Your task to perform on an android device: turn off picture-in-picture Image 0: 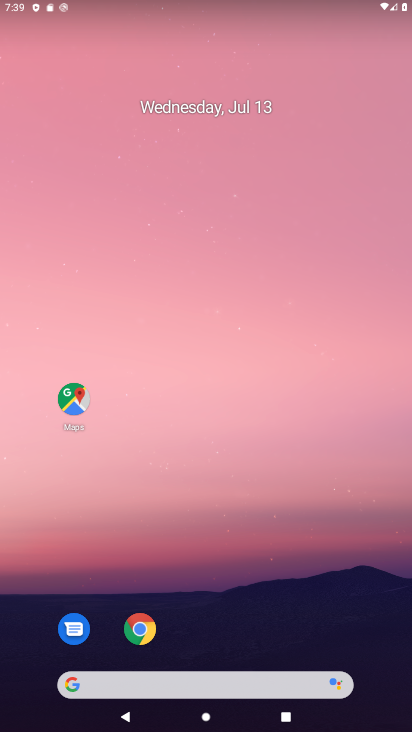
Step 0: drag from (351, 623) to (369, 26)
Your task to perform on an android device: turn off picture-in-picture Image 1: 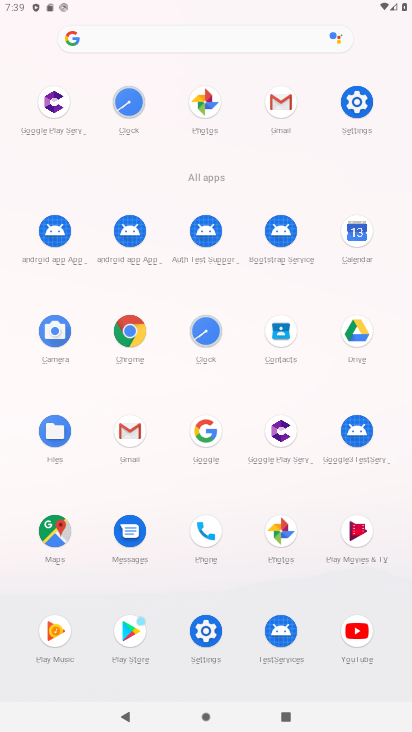
Step 1: click (132, 334)
Your task to perform on an android device: turn off picture-in-picture Image 2: 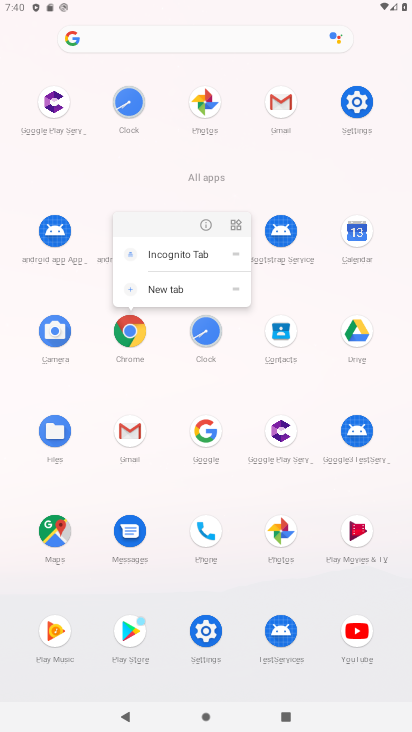
Step 2: click (200, 227)
Your task to perform on an android device: turn off picture-in-picture Image 3: 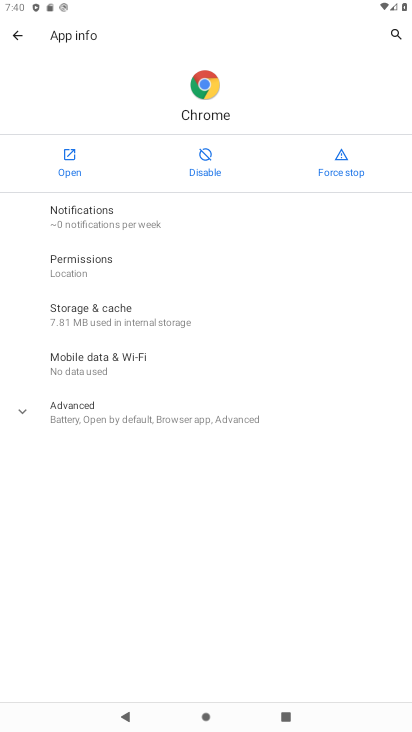
Step 3: click (106, 416)
Your task to perform on an android device: turn off picture-in-picture Image 4: 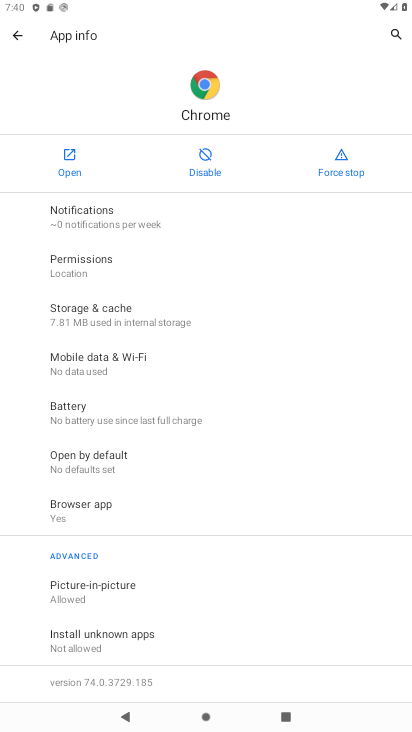
Step 4: click (92, 593)
Your task to perform on an android device: turn off picture-in-picture Image 5: 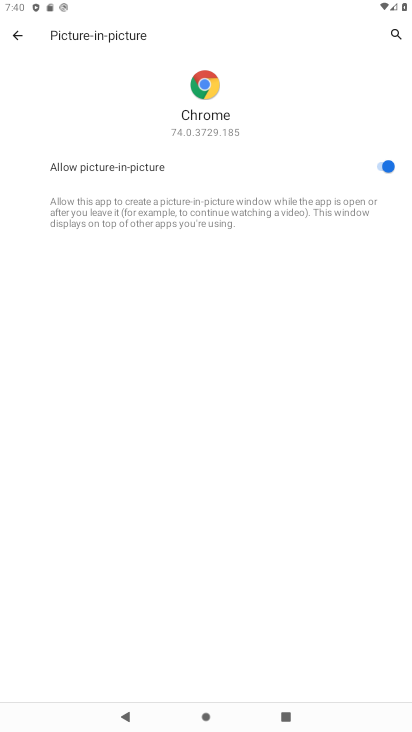
Step 5: click (379, 165)
Your task to perform on an android device: turn off picture-in-picture Image 6: 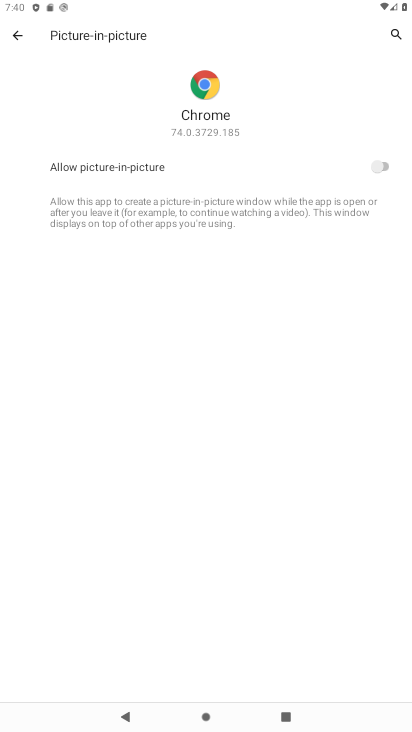
Step 6: task complete